Your task to perform on an android device: toggle notifications settings in the gmail app Image 0: 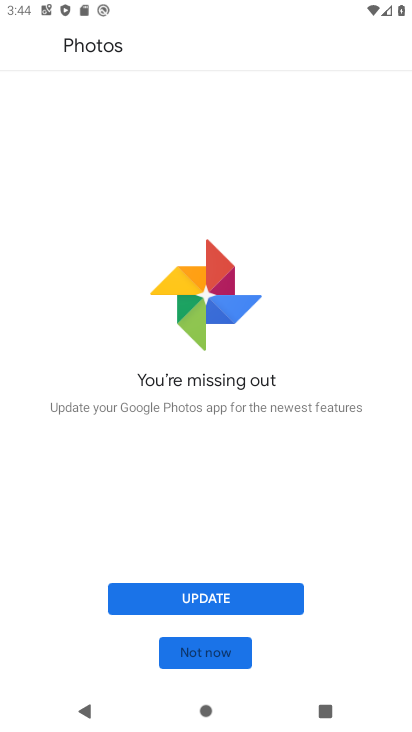
Step 0: press home button
Your task to perform on an android device: toggle notifications settings in the gmail app Image 1: 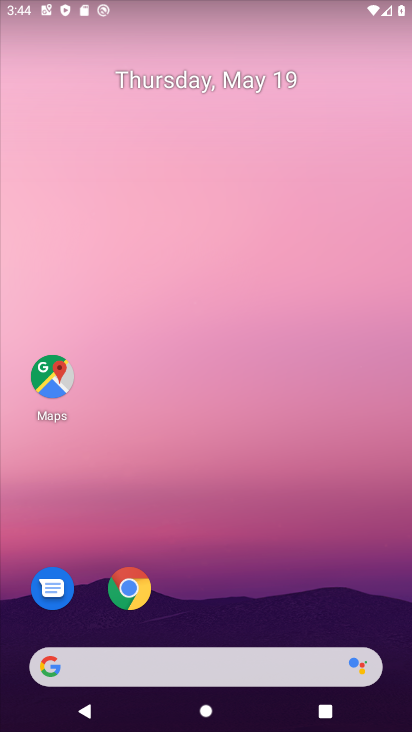
Step 1: drag from (197, 623) to (277, 5)
Your task to perform on an android device: toggle notifications settings in the gmail app Image 2: 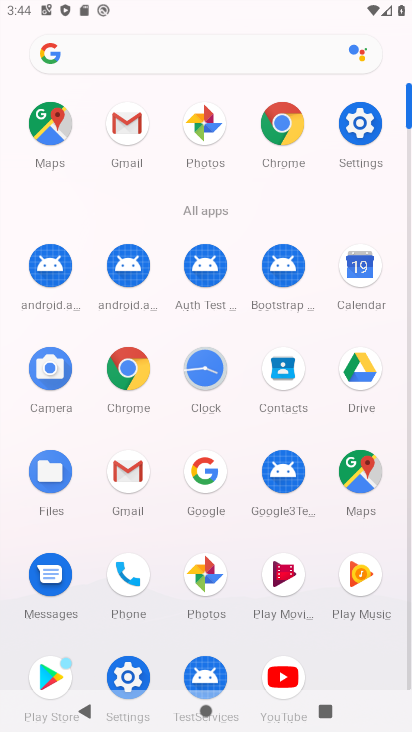
Step 2: click (137, 124)
Your task to perform on an android device: toggle notifications settings in the gmail app Image 3: 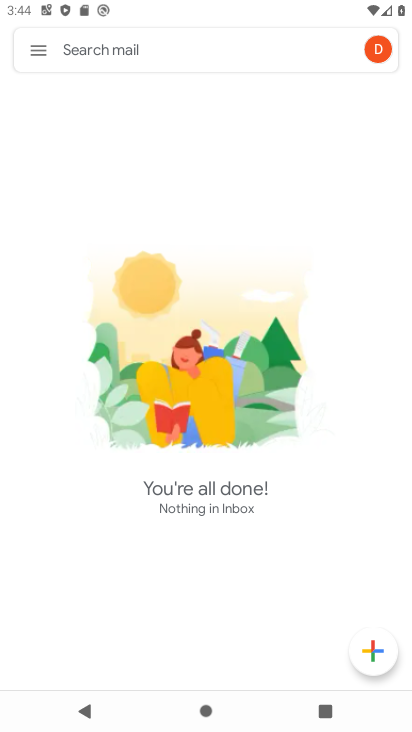
Step 3: click (46, 42)
Your task to perform on an android device: toggle notifications settings in the gmail app Image 4: 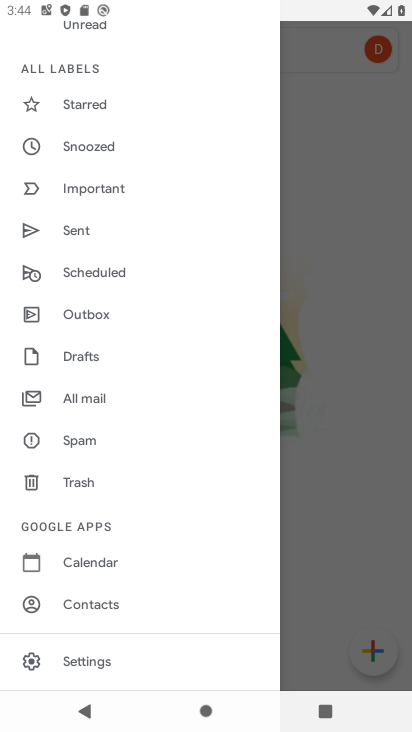
Step 4: click (89, 657)
Your task to perform on an android device: toggle notifications settings in the gmail app Image 5: 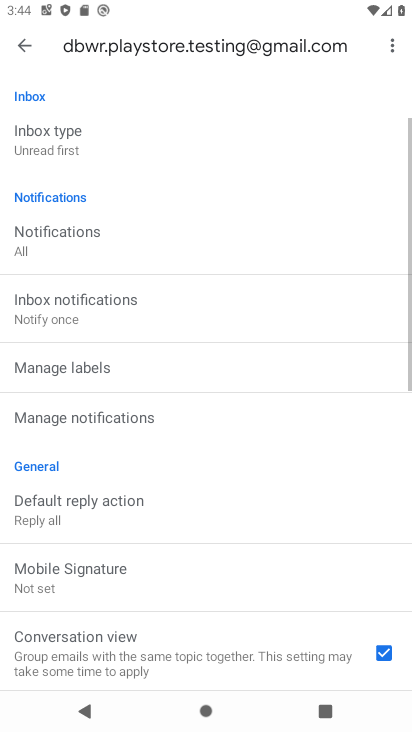
Step 5: click (73, 240)
Your task to perform on an android device: toggle notifications settings in the gmail app Image 6: 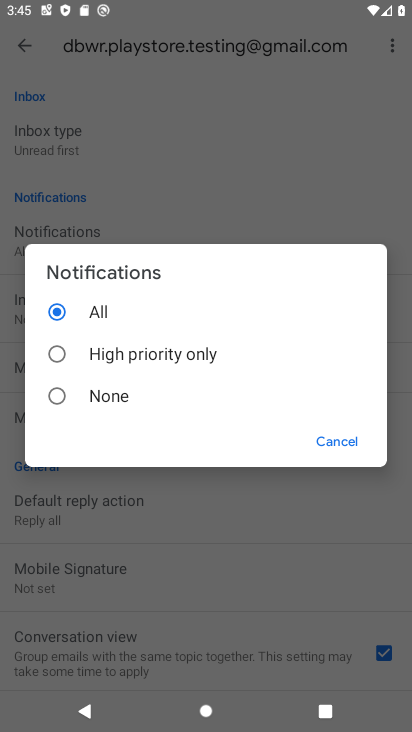
Step 6: click (183, 358)
Your task to perform on an android device: toggle notifications settings in the gmail app Image 7: 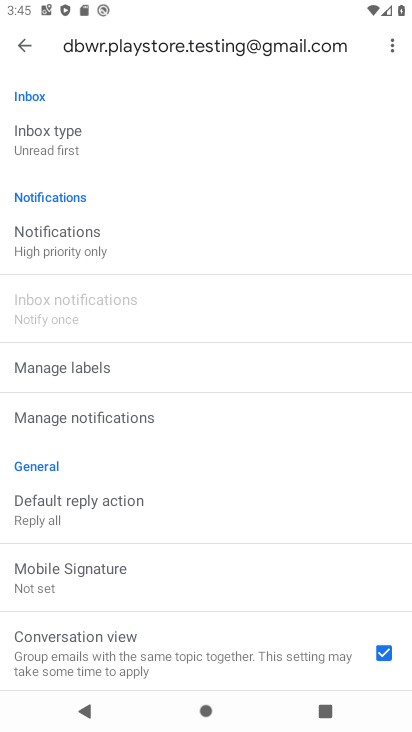
Step 7: task complete